Your task to perform on an android device: What's the weather? Image 0: 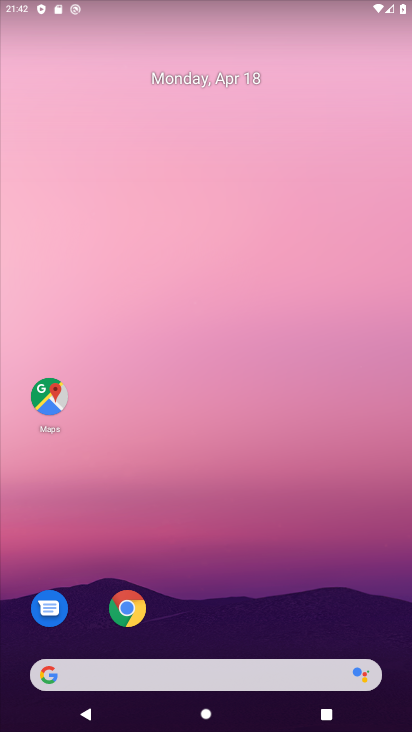
Step 0: drag from (272, 359) to (261, 69)
Your task to perform on an android device: What's the weather? Image 1: 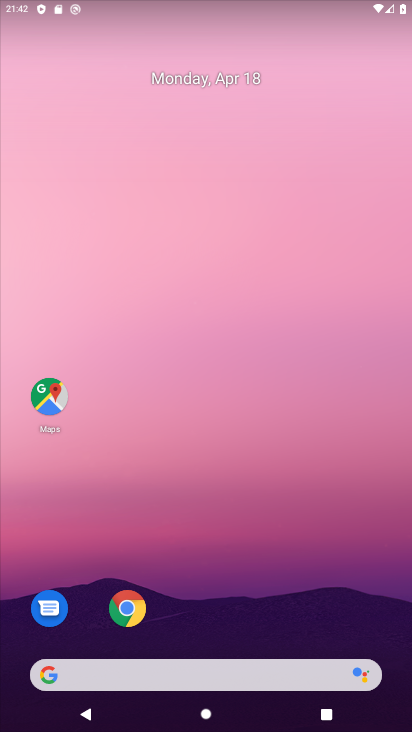
Step 1: drag from (217, 598) to (203, 3)
Your task to perform on an android device: What's the weather? Image 2: 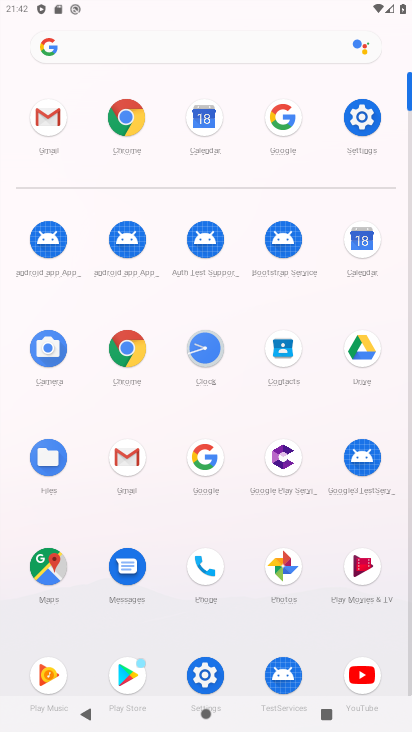
Step 2: click (204, 462)
Your task to perform on an android device: What's the weather? Image 3: 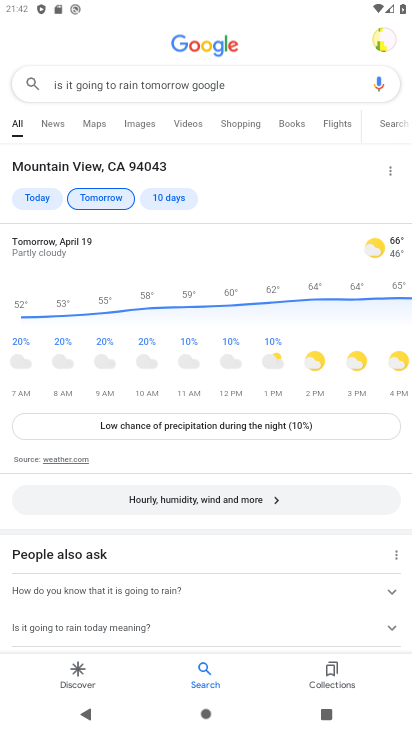
Step 3: click (285, 80)
Your task to perform on an android device: What's the weather? Image 4: 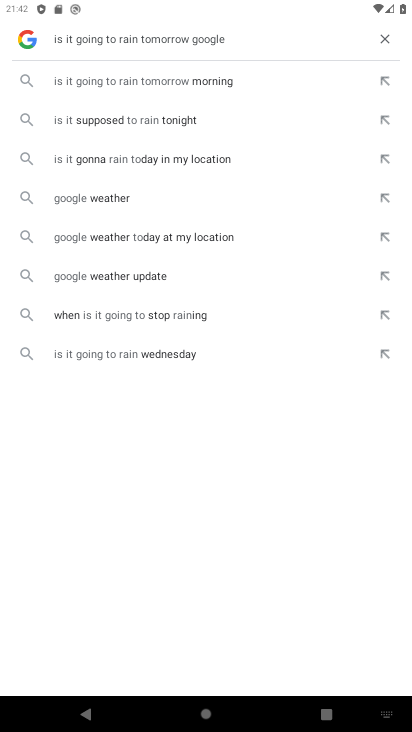
Step 4: click (387, 39)
Your task to perform on an android device: What's the weather? Image 5: 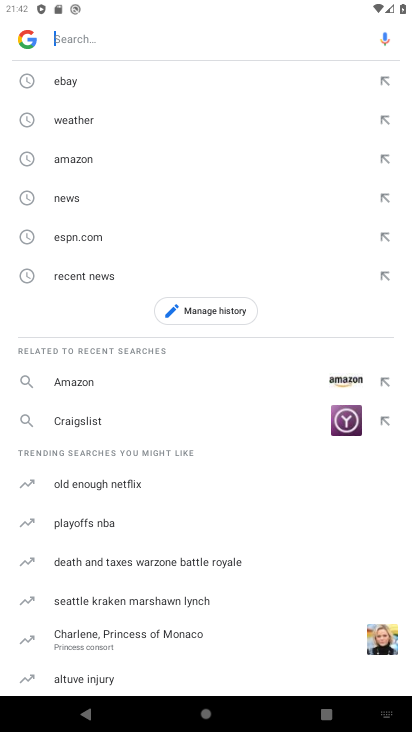
Step 5: click (113, 124)
Your task to perform on an android device: What's the weather? Image 6: 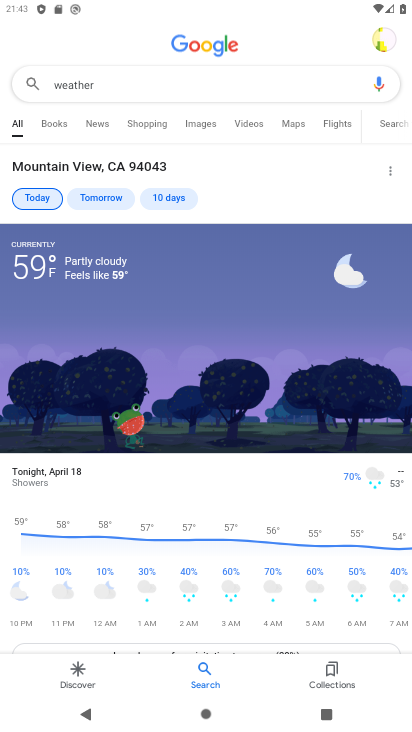
Step 6: task complete